Your task to perform on an android device: Go to CNN.com Image 0: 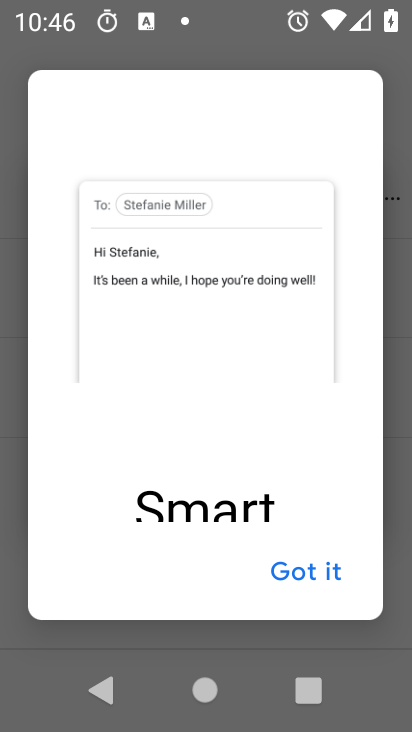
Step 0: press home button
Your task to perform on an android device: Go to CNN.com Image 1: 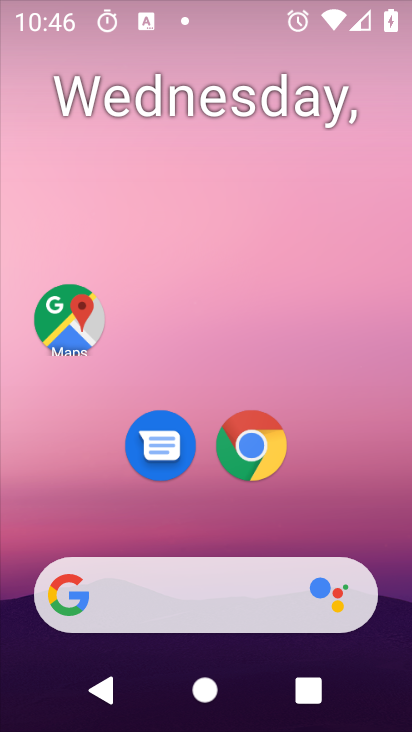
Step 1: drag from (309, 498) to (272, 34)
Your task to perform on an android device: Go to CNN.com Image 2: 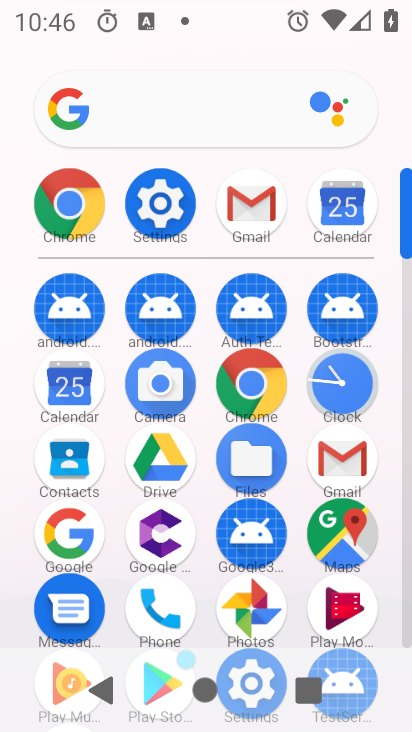
Step 2: click (80, 217)
Your task to perform on an android device: Go to CNN.com Image 3: 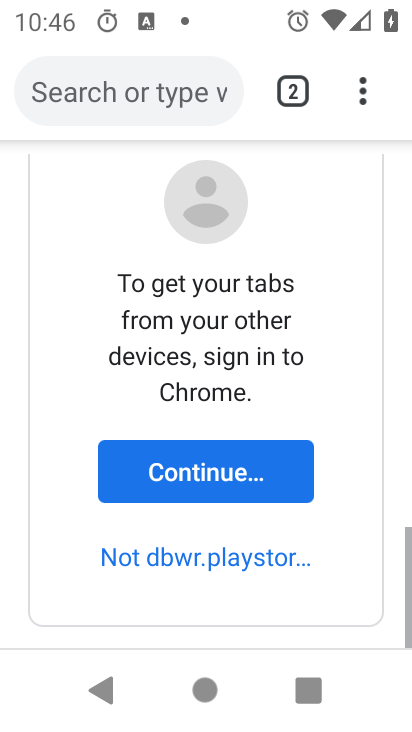
Step 3: drag from (137, 250) to (209, 675)
Your task to perform on an android device: Go to CNN.com Image 4: 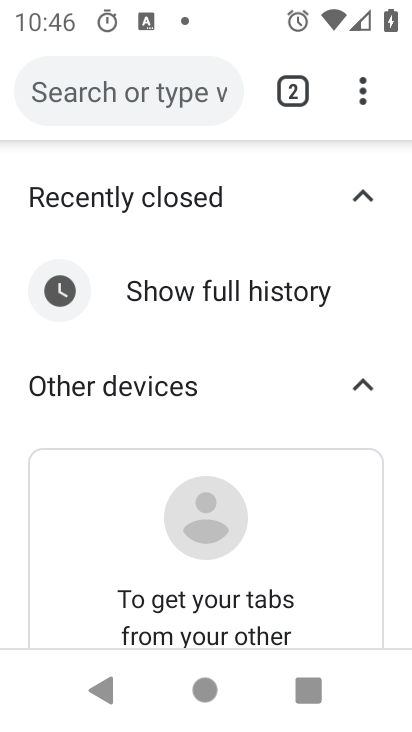
Step 4: drag from (208, 231) to (254, 665)
Your task to perform on an android device: Go to CNN.com Image 5: 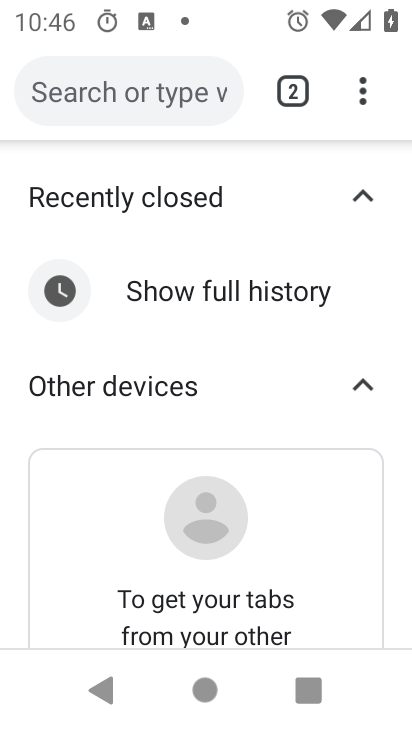
Step 5: drag from (208, 170) to (310, 637)
Your task to perform on an android device: Go to CNN.com Image 6: 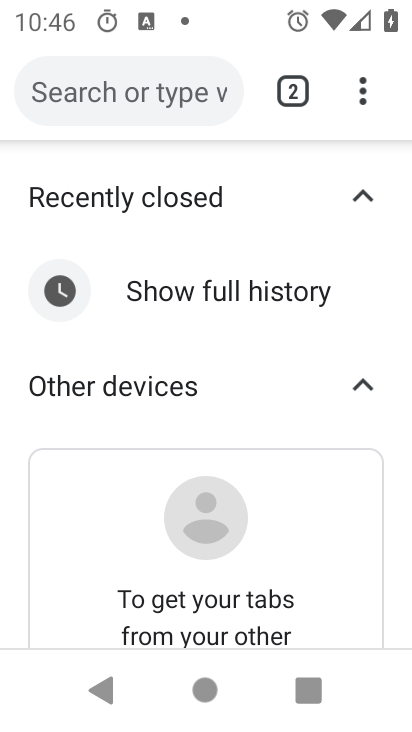
Step 6: click (122, 96)
Your task to perform on an android device: Go to CNN.com Image 7: 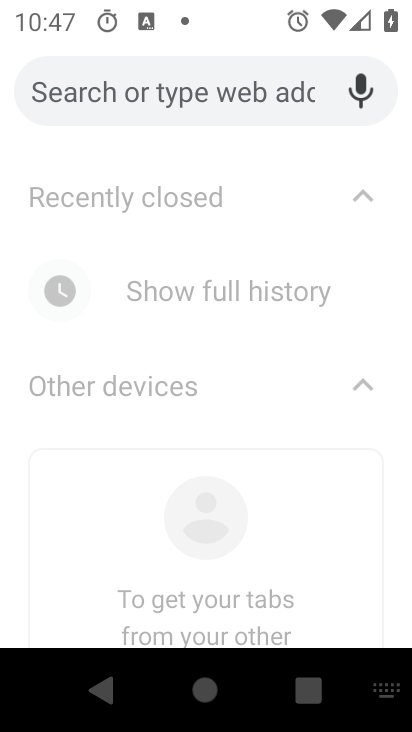
Step 7: type "cnn"
Your task to perform on an android device: Go to CNN.com Image 8: 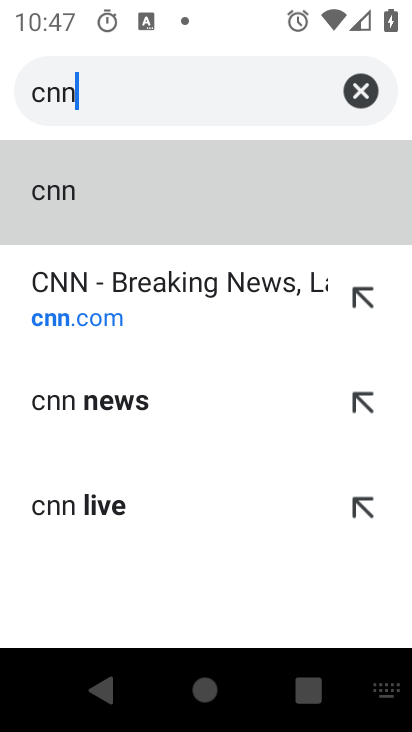
Step 8: click (172, 303)
Your task to perform on an android device: Go to CNN.com Image 9: 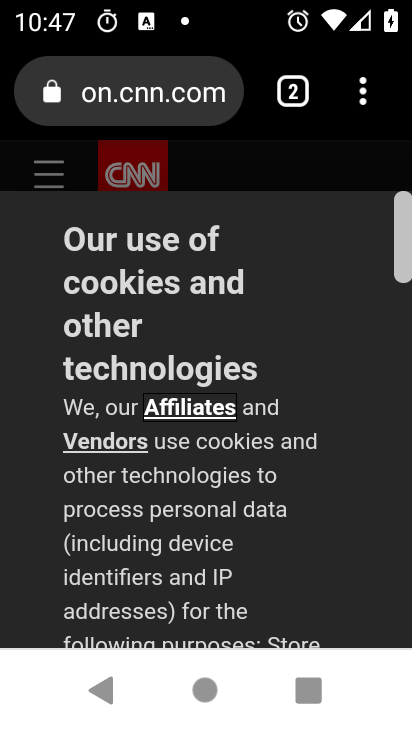
Step 9: task complete